Your task to perform on an android device: toggle airplane mode Image 0: 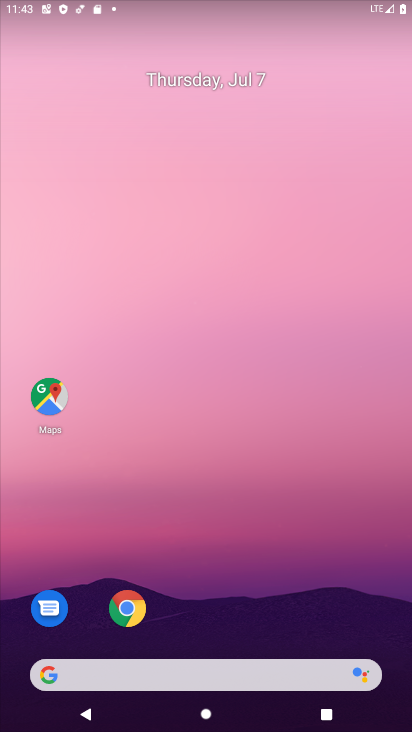
Step 0: drag from (199, 656) to (277, 55)
Your task to perform on an android device: toggle airplane mode Image 1: 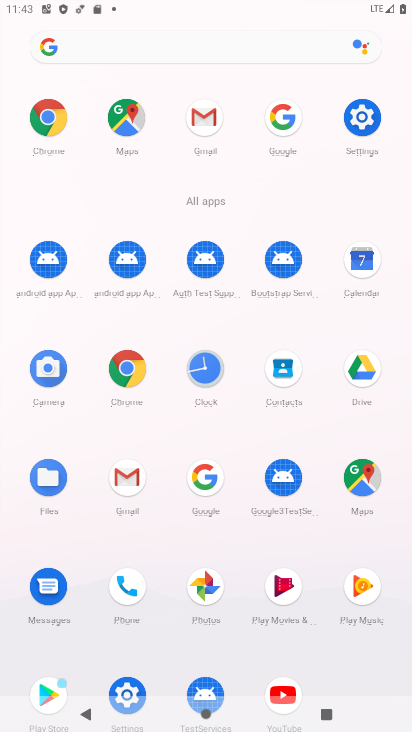
Step 1: click (130, 684)
Your task to perform on an android device: toggle airplane mode Image 2: 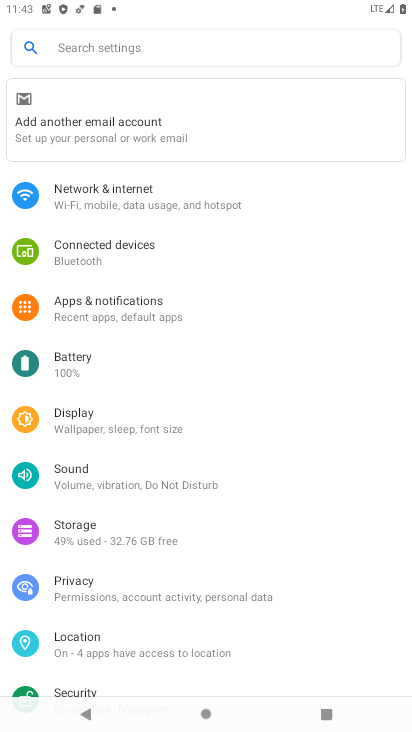
Step 2: click (205, 205)
Your task to perform on an android device: toggle airplane mode Image 3: 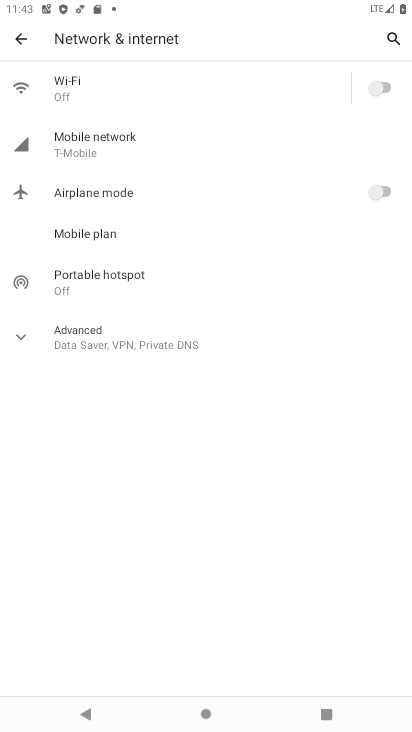
Step 3: click (394, 195)
Your task to perform on an android device: toggle airplane mode Image 4: 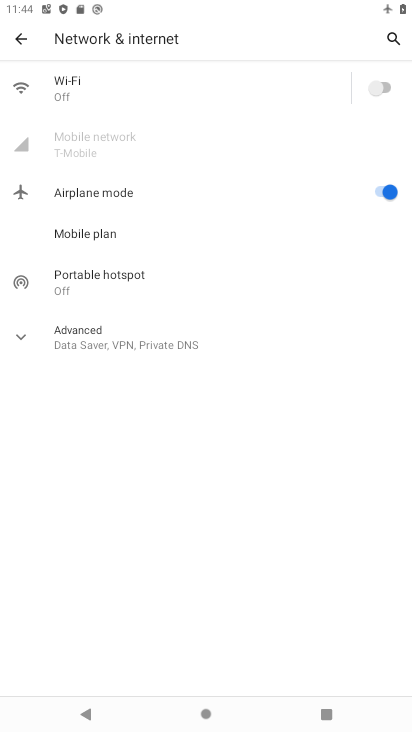
Step 4: task complete